Your task to perform on an android device: turn off notifications in google photos Image 0: 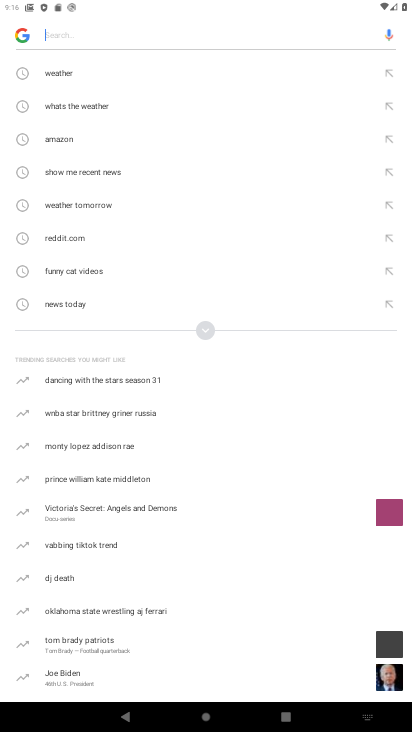
Step 0: press home button
Your task to perform on an android device: turn off notifications in google photos Image 1: 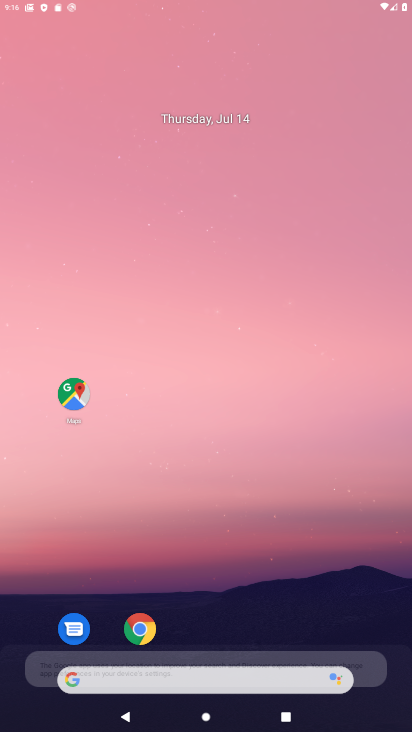
Step 1: press home button
Your task to perform on an android device: turn off notifications in google photos Image 2: 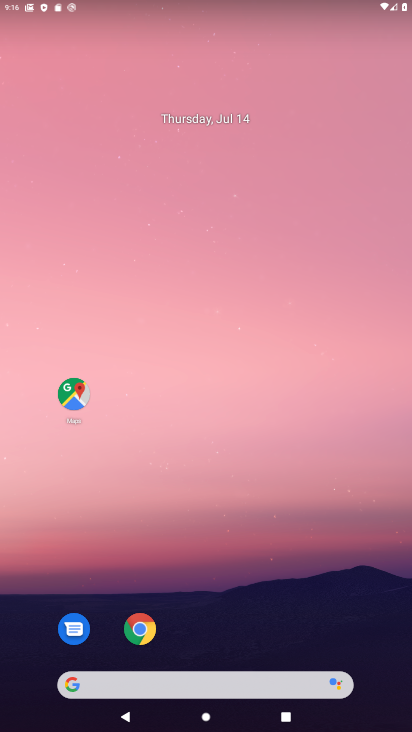
Step 2: drag from (264, 626) to (249, 109)
Your task to perform on an android device: turn off notifications in google photos Image 3: 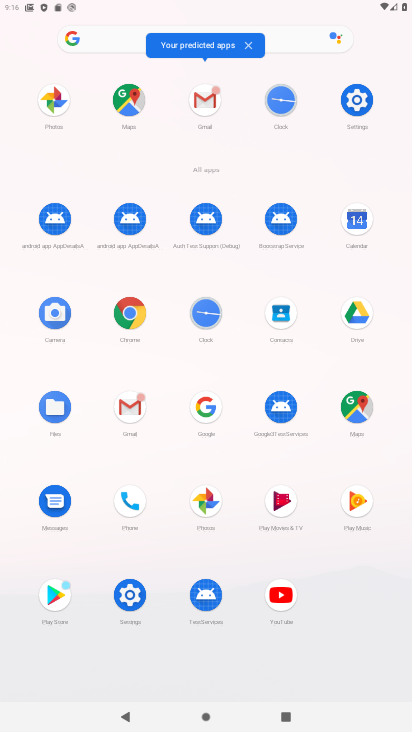
Step 3: click (202, 495)
Your task to perform on an android device: turn off notifications in google photos Image 4: 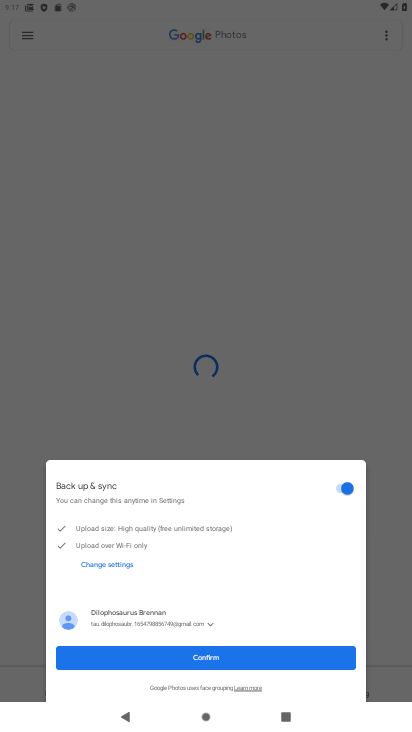
Step 4: click (239, 656)
Your task to perform on an android device: turn off notifications in google photos Image 5: 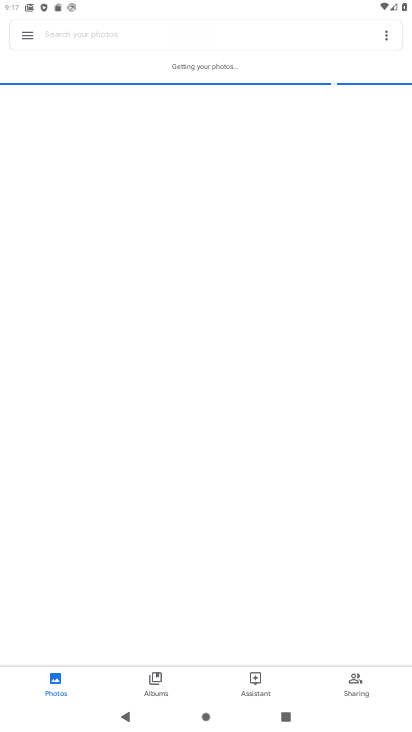
Step 5: click (27, 32)
Your task to perform on an android device: turn off notifications in google photos Image 6: 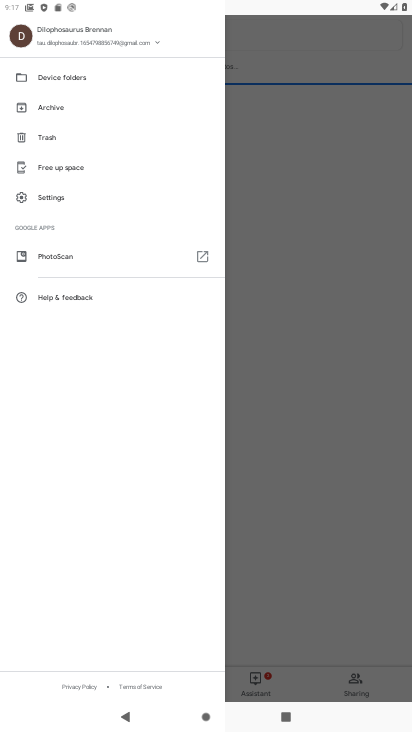
Step 6: click (48, 193)
Your task to perform on an android device: turn off notifications in google photos Image 7: 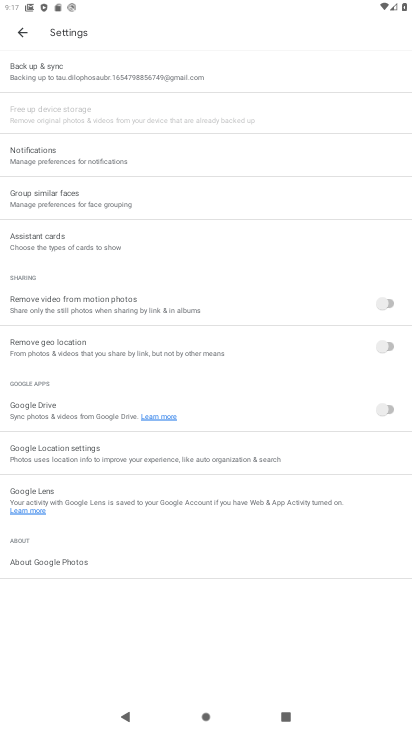
Step 7: click (45, 156)
Your task to perform on an android device: turn off notifications in google photos Image 8: 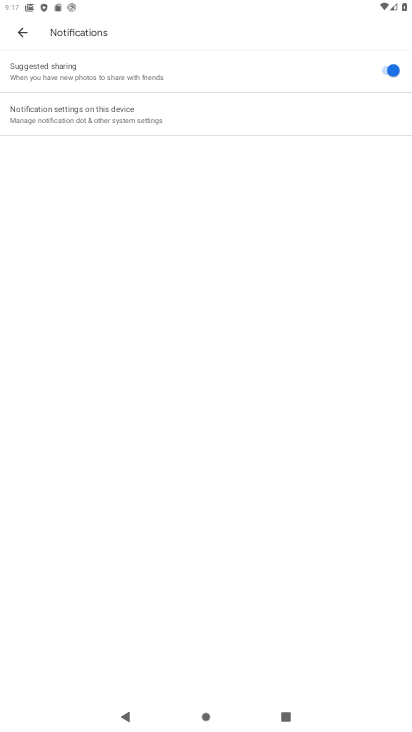
Step 8: click (203, 120)
Your task to perform on an android device: turn off notifications in google photos Image 9: 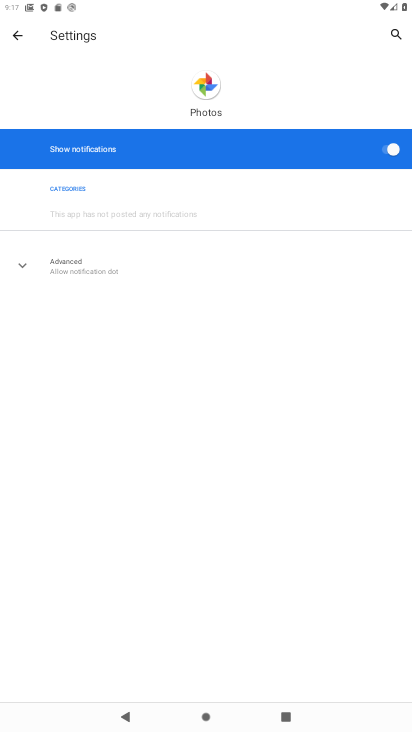
Step 9: click (386, 146)
Your task to perform on an android device: turn off notifications in google photos Image 10: 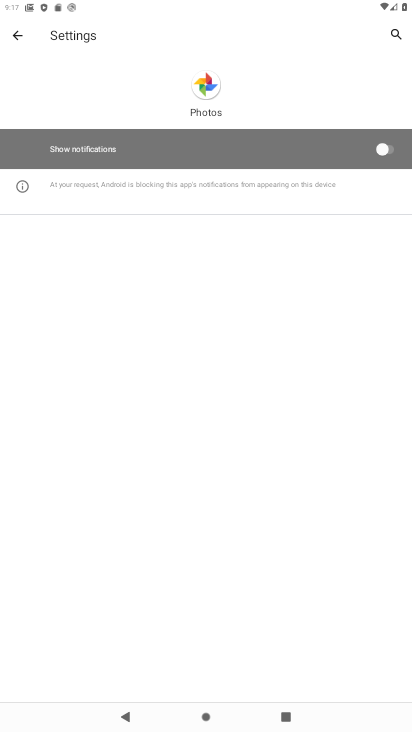
Step 10: task complete